Your task to perform on an android device: set the stopwatch Image 0: 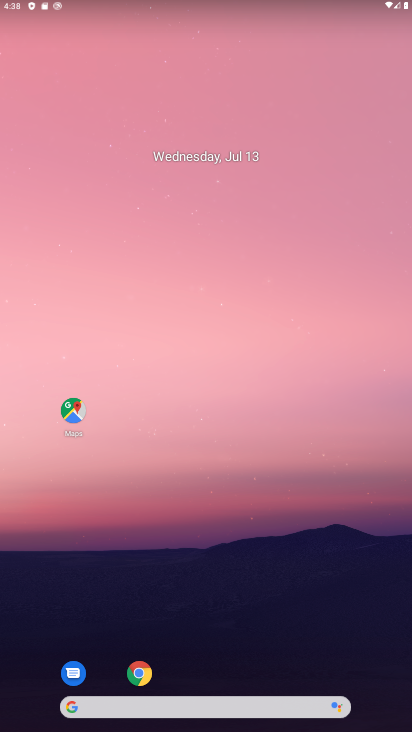
Step 0: drag from (306, 672) to (231, 125)
Your task to perform on an android device: set the stopwatch Image 1: 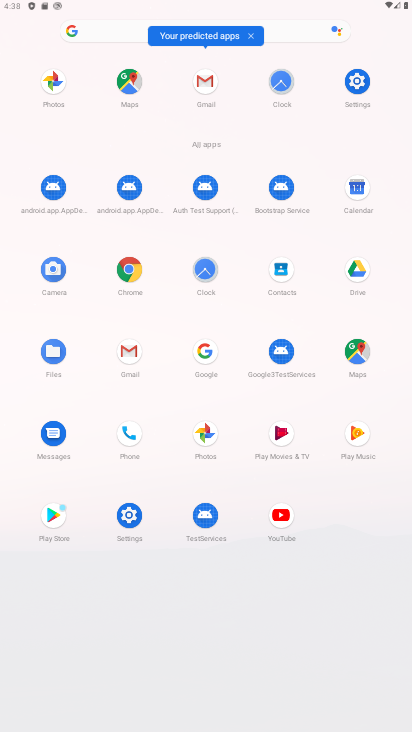
Step 1: click (281, 87)
Your task to perform on an android device: set the stopwatch Image 2: 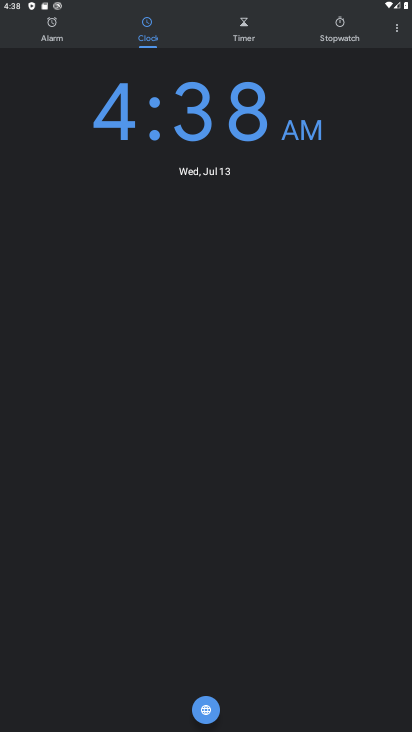
Step 2: click (360, 32)
Your task to perform on an android device: set the stopwatch Image 3: 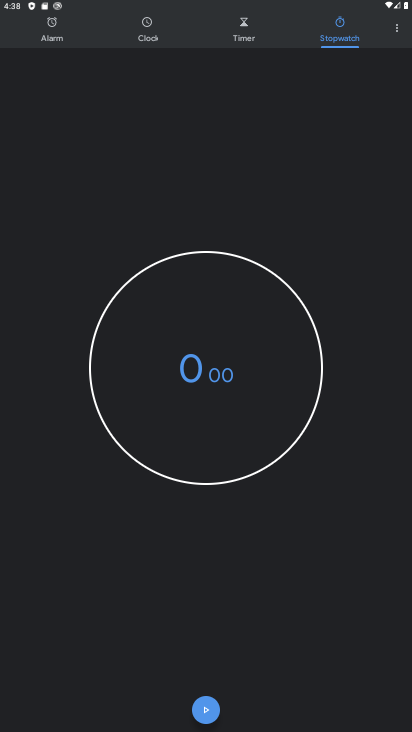
Step 3: click (199, 707)
Your task to perform on an android device: set the stopwatch Image 4: 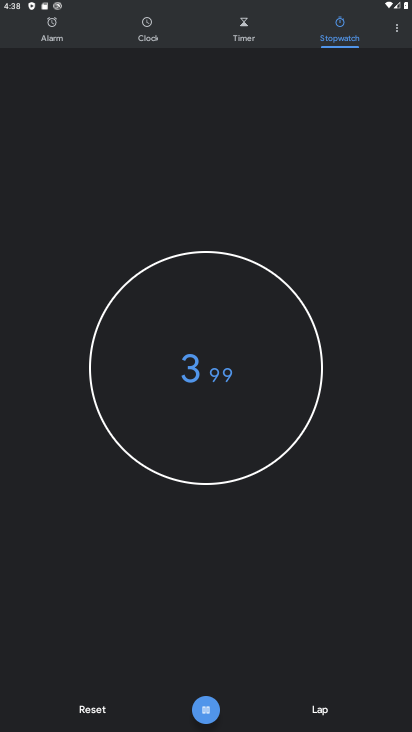
Step 4: task complete